Your task to perform on an android device: Open Google Maps and go to "Timeline" Image 0: 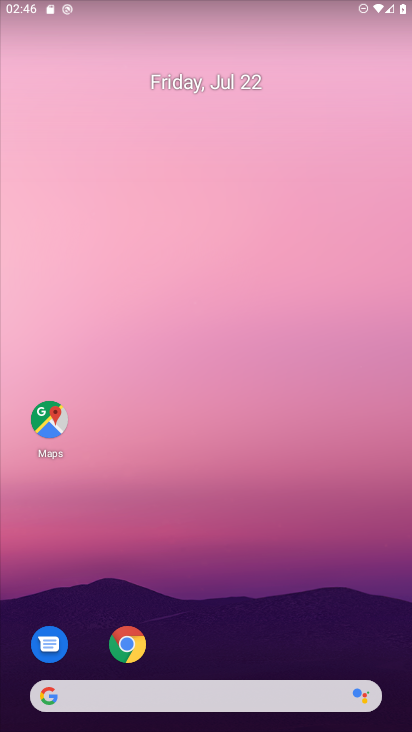
Step 0: click (52, 409)
Your task to perform on an android device: Open Google Maps and go to "Timeline" Image 1: 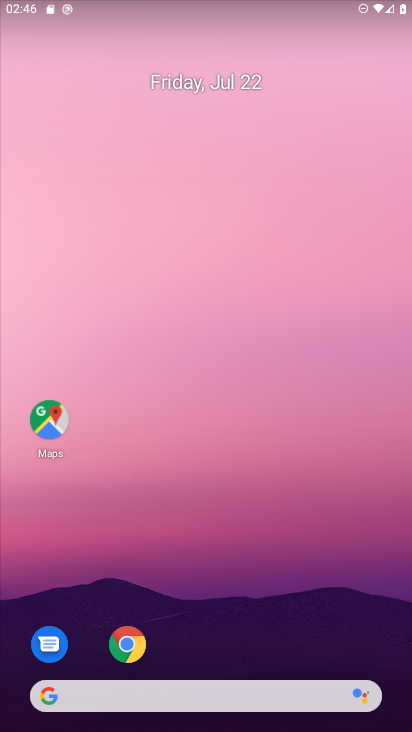
Step 1: click (52, 409)
Your task to perform on an android device: Open Google Maps and go to "Timeline" Image 2: 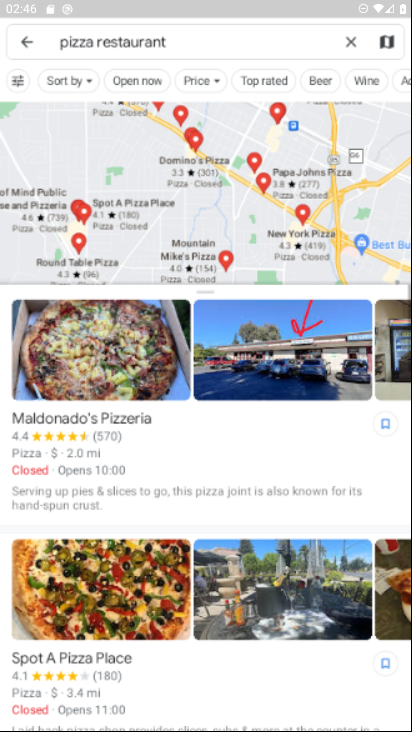
Step 2: click (52, 409)
Your task to perform on an android device: Open Google Maps and go to "Timeline" Image 3: 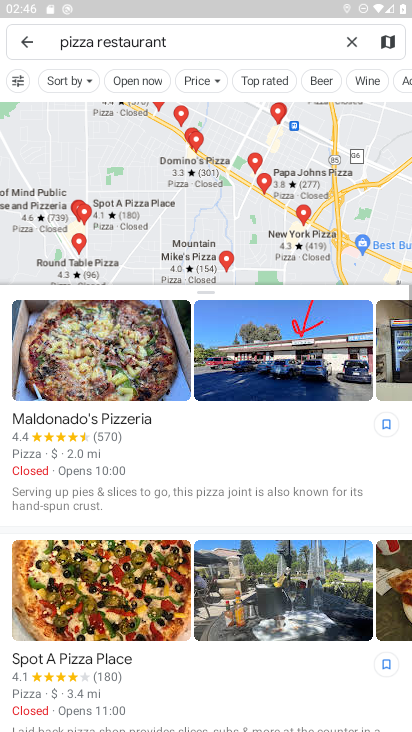
Step 3: click (30, 47)
Your task to perform on an android device: Open Google Maps and go to "Timeline" Image 4: 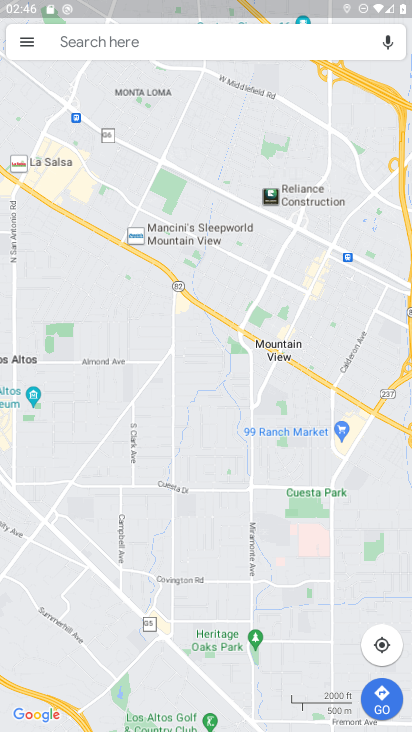
Step 4: click (30, 47)
Your task to perform on an android device: Open Google Maps and go to "Timeline" Image 5: 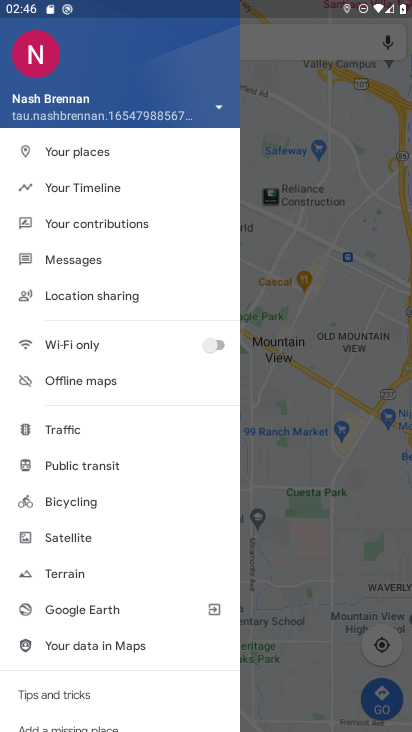
Step 5: click (71, 189)
Your task to perform on an android device: Open Google Maps and go to "Timeline" Image 6: 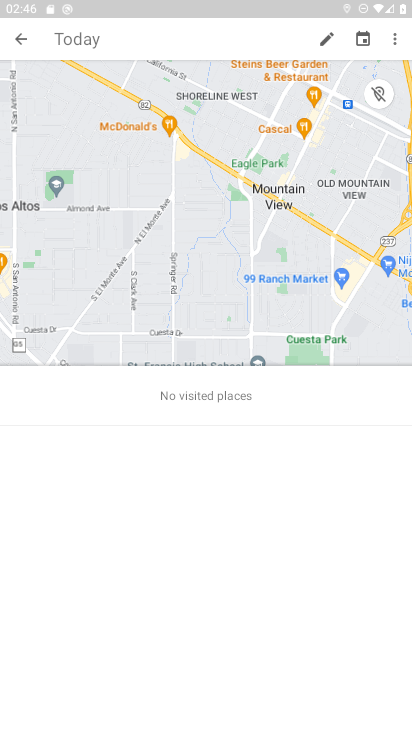
Step 6: task complete